Your task to perform on an android device: Is it going to rain today? Image 0: 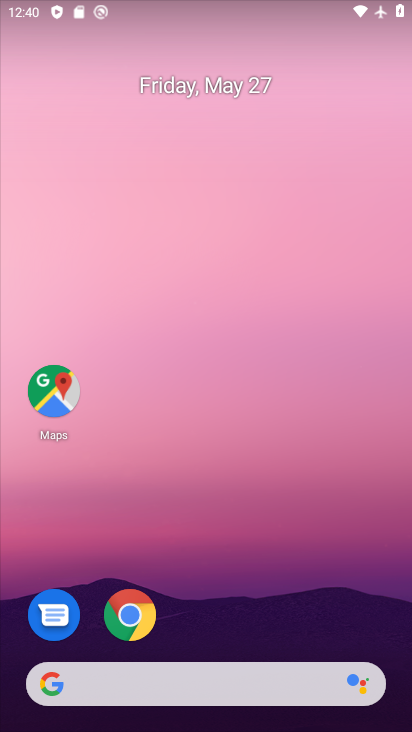
Step 0: press home button
Your task to perform on an android device: Is it going to rain today? Image 1: 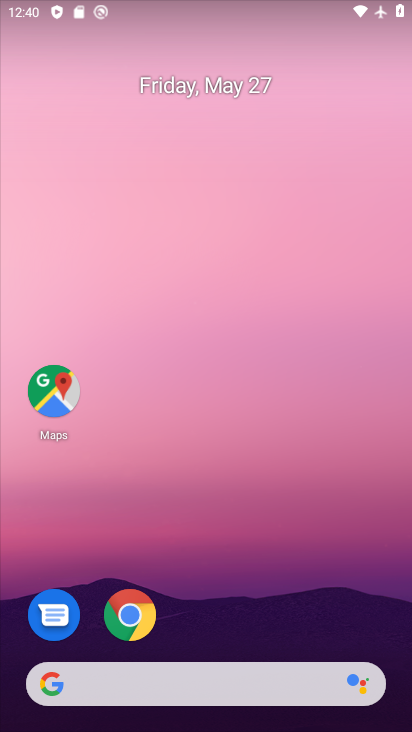
Step 1: click (53, 687)
Your task to perform on an android device: Is it going to rain today? Image 2: 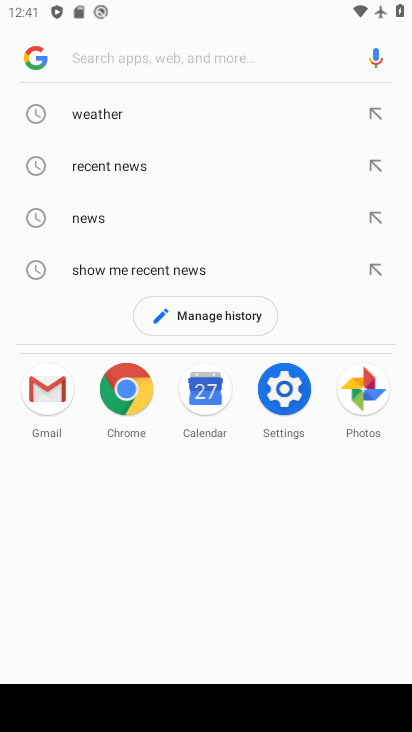
Step 2: type "Is it going to rain today?"
Your task to perform on an android device: Is it going to rain today? Image 3: 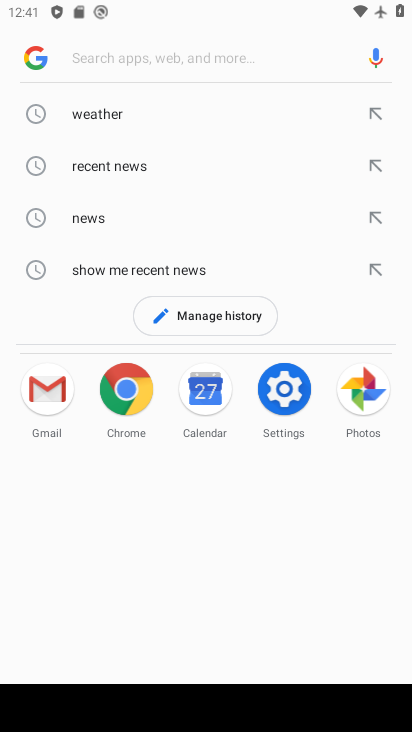
Step 3: click (240, 52)
Your task to perform on an android device: Is it going to rain today? Image 4: 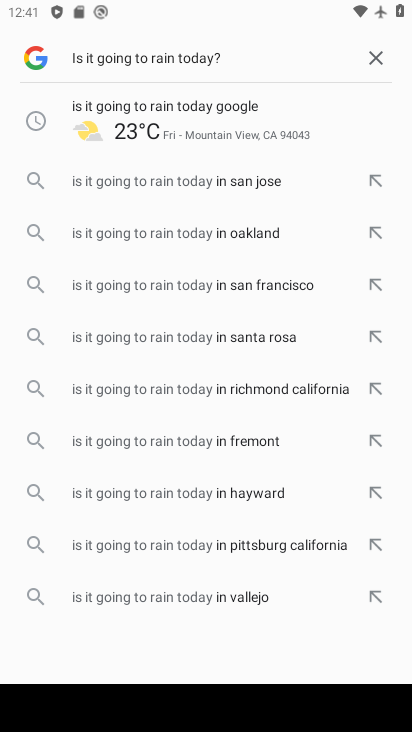
Step 4: click (190, 109)
Your task to perform on an android device: Is it going to rain today? Image 5: 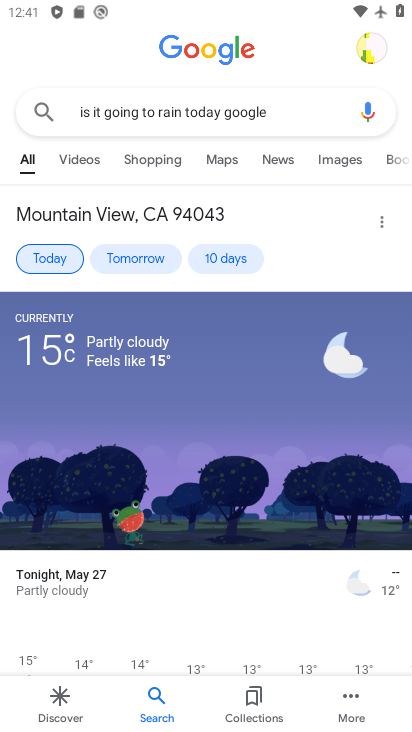
Step 5: task complete